Your task to perform on an android device: Open ESPN.com Image 0: 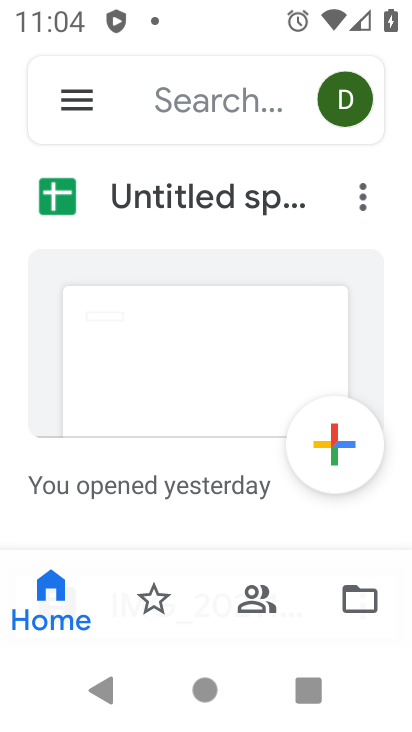
Step 0: press home button
Your task to perform on an android device: Open ESPN.com Image 1: 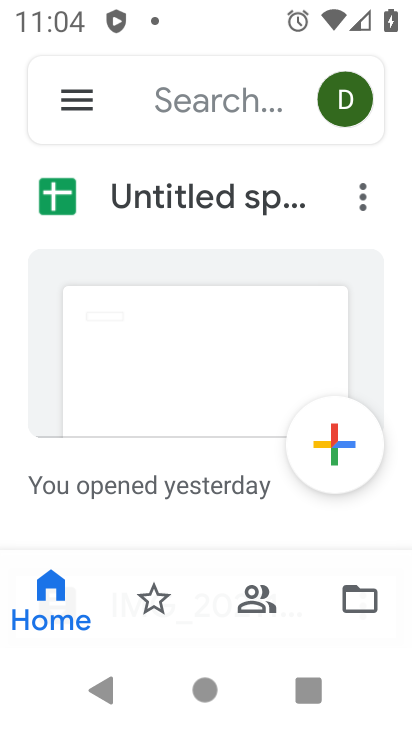
Step 1: press home button
Your task to perform on an android device: Open ESPN.com Image 2: 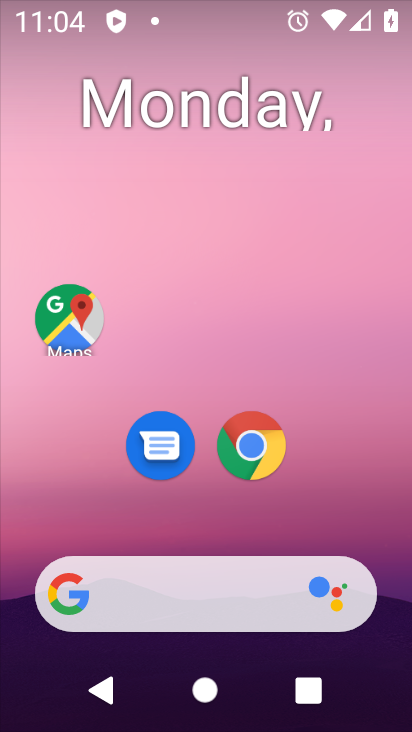
Step 2: click (231, 469)
Your task to perform on an android device: Open ESPN.com Image 3: 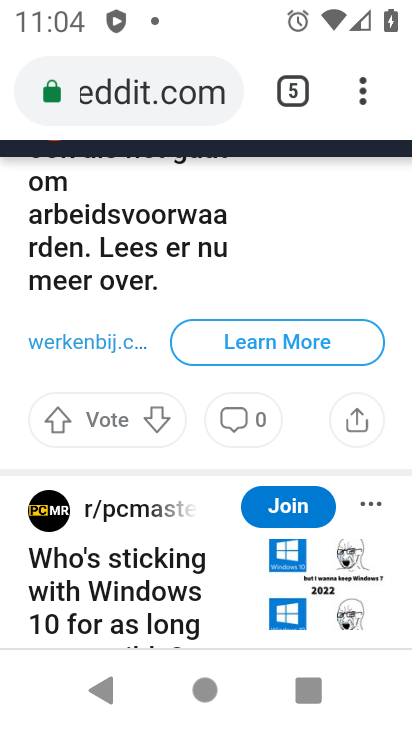
Step 3: click (296, 94)
Your task to perform on an android device: Open ESPN.com Image 4: 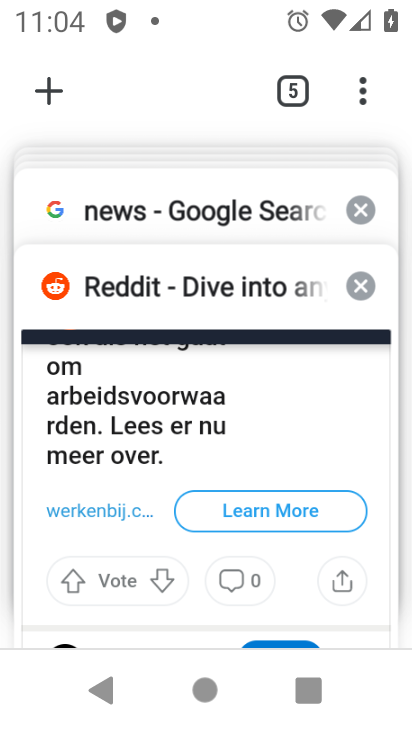
Step 4: click (47, 93)
Your task to perform on an android device: Open ESPN.com Image 5: 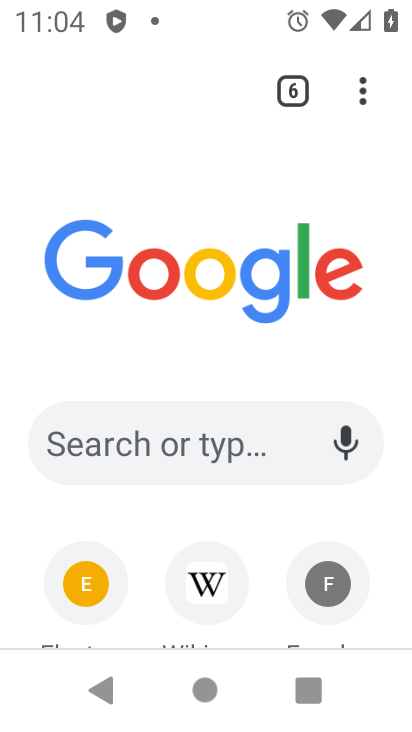
Step 5: drag from (139, 542) to (158, 231)
Your task to perform on an android device: Open ESPN.com Image 6: 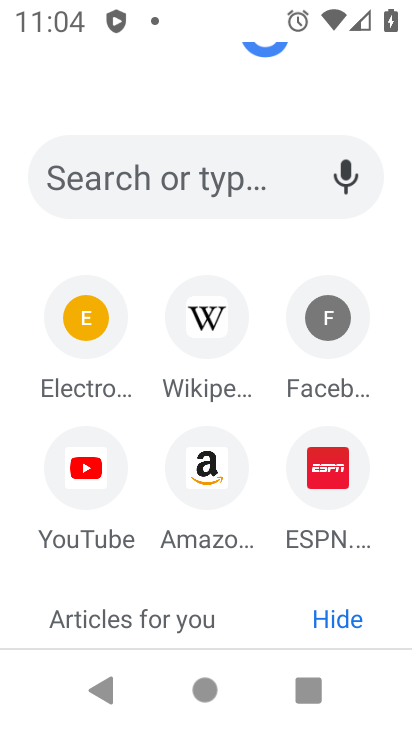
Step 6: click (335, 464)
Your task to perform on an android device: Open ESPN.com Image 7: 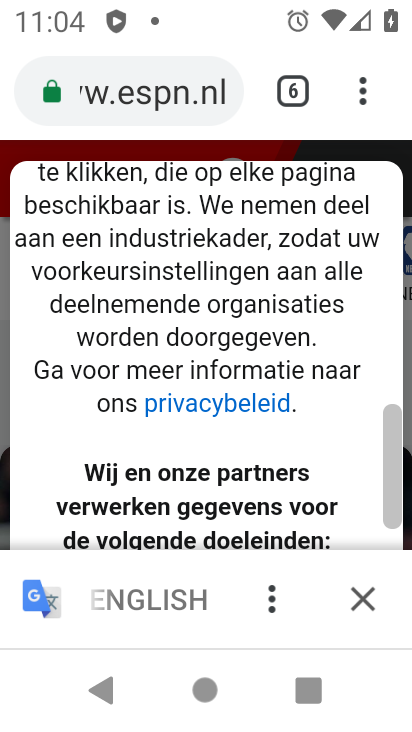
Step 7: drag from (300, 533) to (269, 152)
Your task to perform on an android device: Open ESPN.com Image 8: 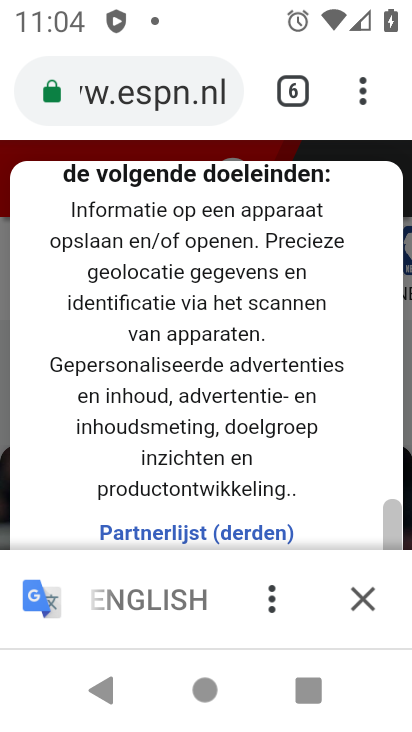
Step 8: drag from (207, 487) to (206, 253)
Your task to perform on an android device: Open ESPN.com Image 9: 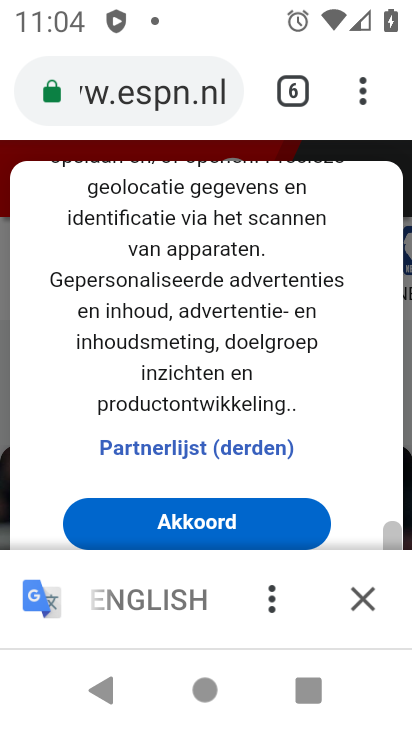
Step 9: drag from (209, 489) to (196, 314)
Your task to perform on an android device: Open ESPN.com Image 10: 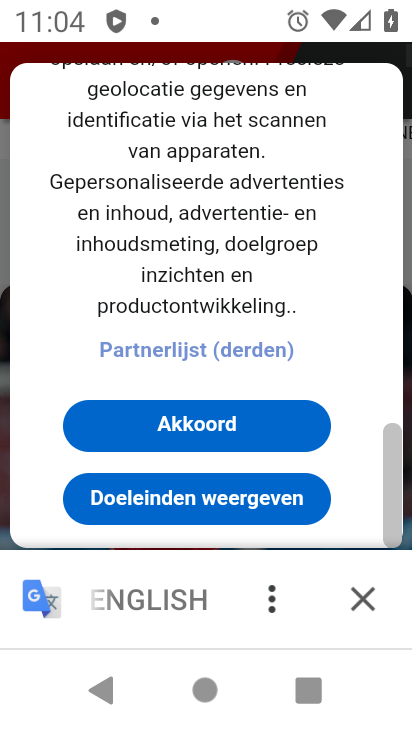
Step 10: click (165, 432)
Your task to perform on an android device: Open ESPN.com Image 11: 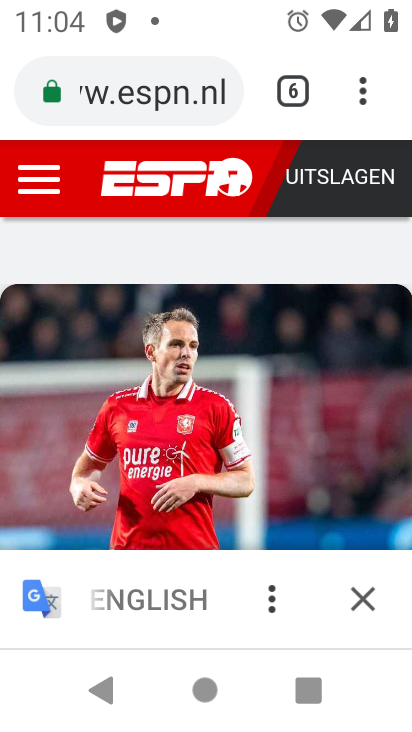
Step 11: click (368, 604)
Your task to perform on an android device: Open ESPN.com Image 12: 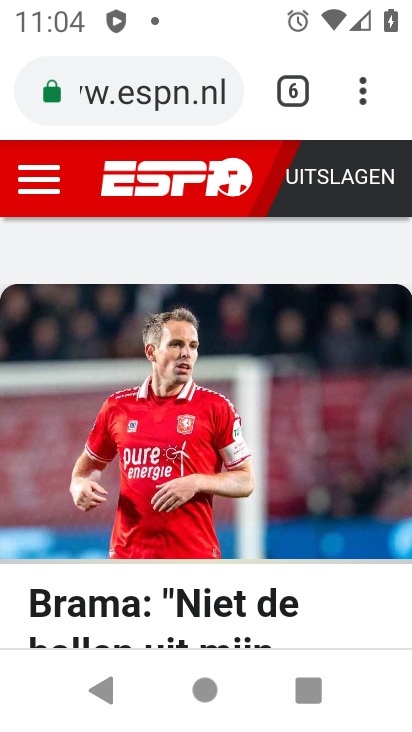
Step 12: task complete